Your task to perform on an android device: Open the calendar and show me this week's events? Image 0: 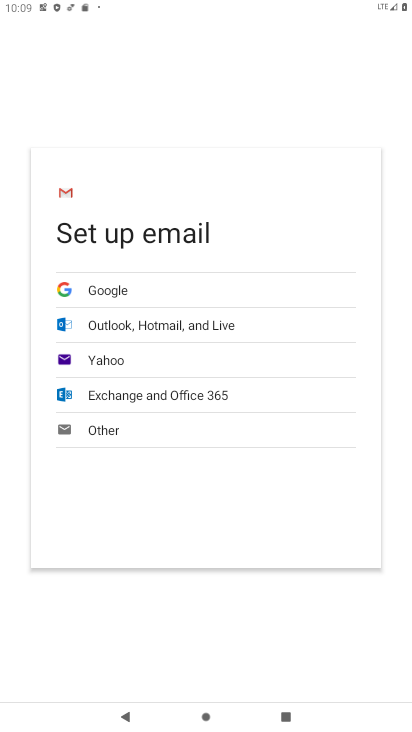
Step 0: press home button
Your task to perform on an android device: Open the calendar and show me this week's events? Image 1: 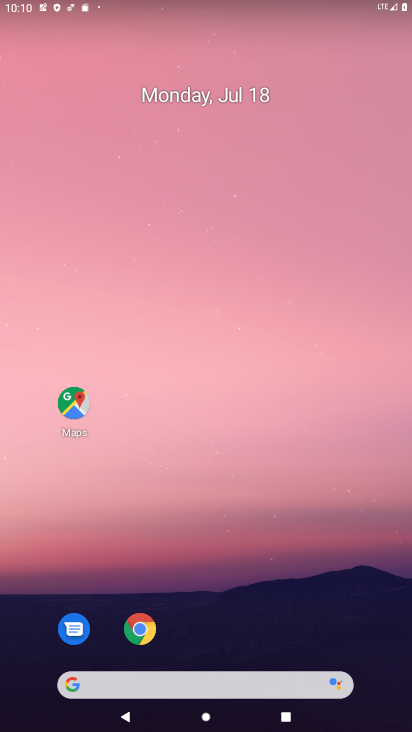
Step 1: drag from (188, 680) to (145, 122)
Your task to perform on an android device: Open the calendar and show me this week's events? Image 2: 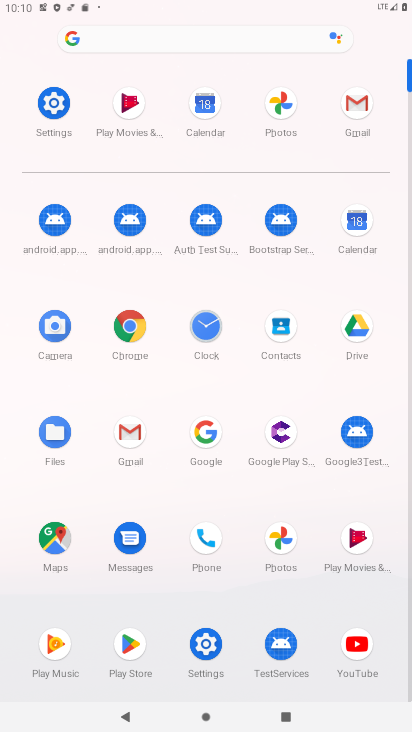
Step 2: click (353, 231)
Your task to perform on an android device: Open the calendar and show me this week's events? Image 3: 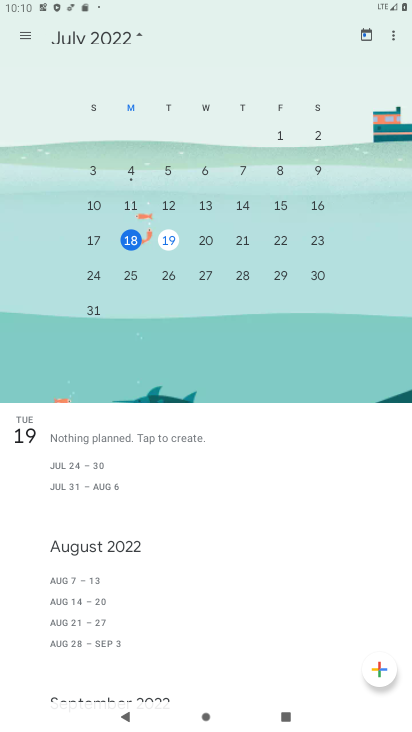
Step 3: click (25, 34)
Your task to perform on an android device: Open the calendar and show me this week's events? Image 4: 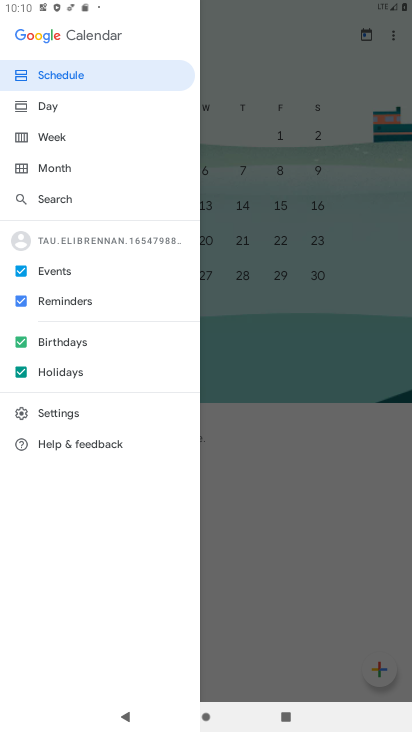
Step 4: click (58, 138)
Your task to perform on an android device: Open the calendar and show me this week's events? Image 5: 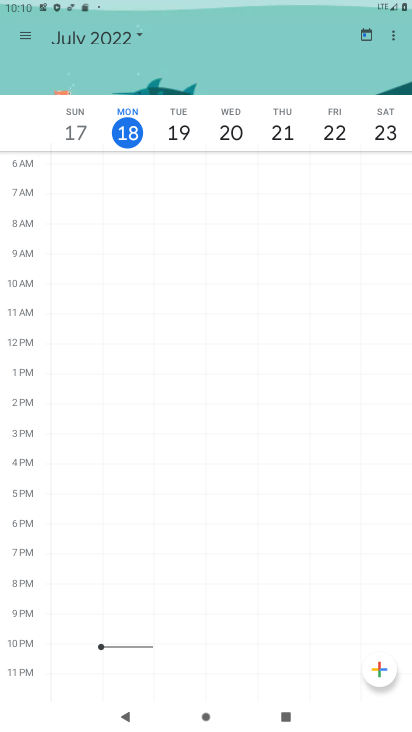
Step 5: task complete